Your task to perform on an android device: Is it going to rain today? Image 0: 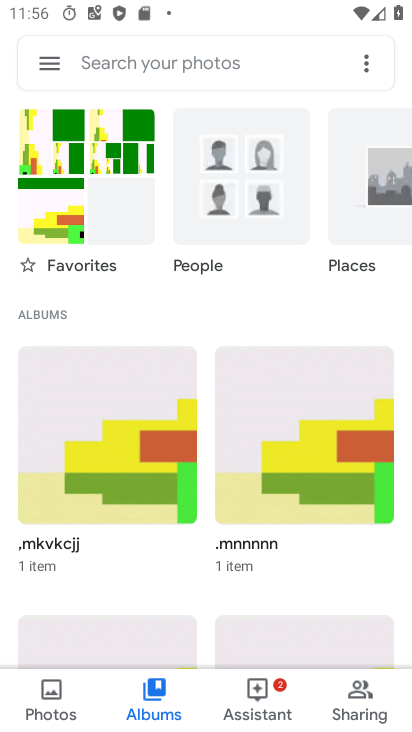
Step 0: press home button
Your task to perform on an android device: Is it going to rain today? Image 1: 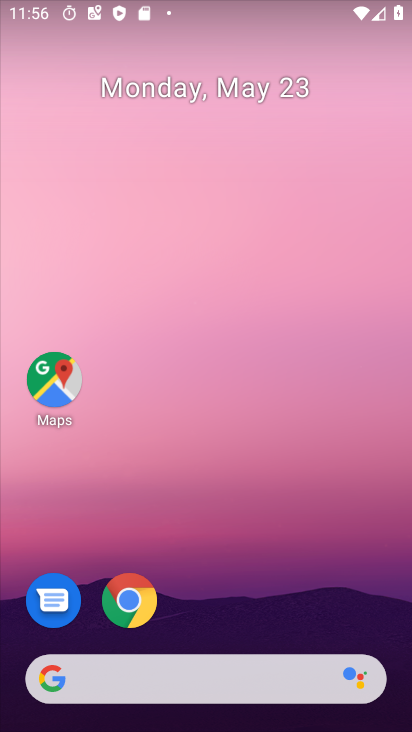
Step 1: drag from (226, 593) to (253, 152)
Your task to perform on an android device: Is it going to rain today? Image 2: 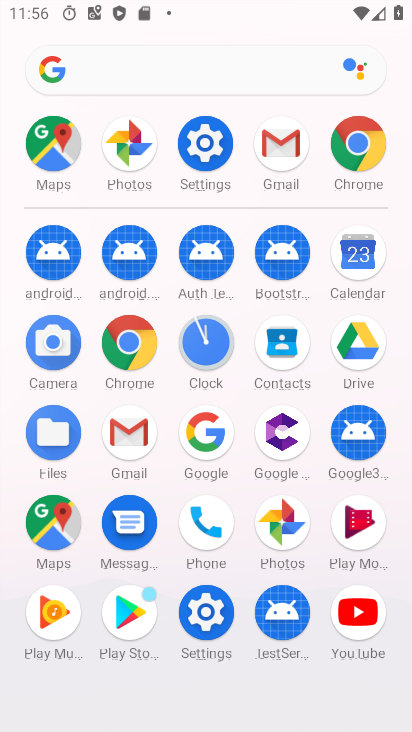
Step 2: click (355, 137)
Your task to perform on an android device: Is it going to rain today? Image 3: 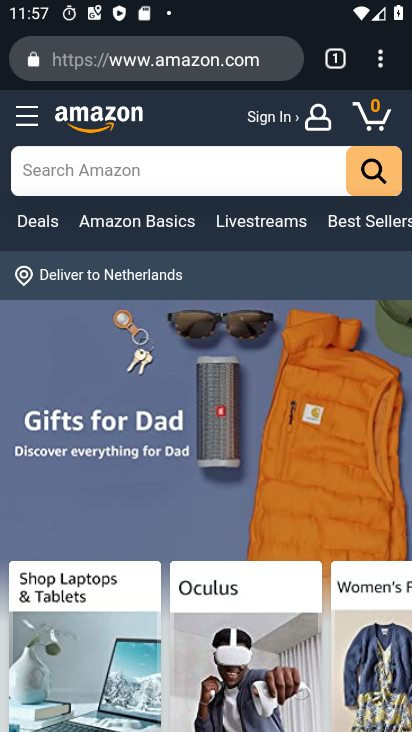
Step 3: press home button
Your task to perform on an android device: Is it going to rain today? Image 4: 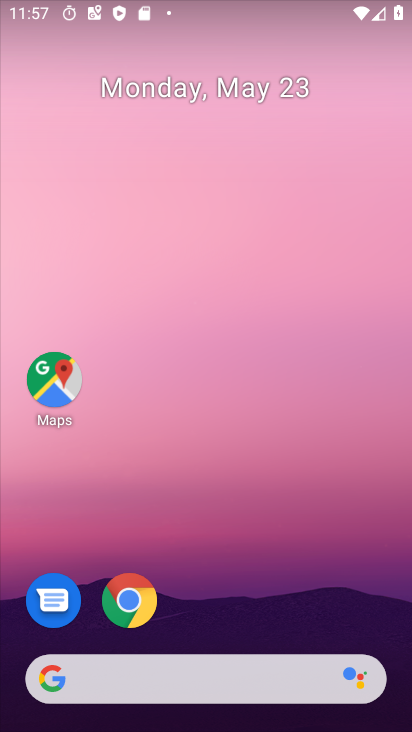
Step 4: click (113, 605)
Your task to perform on an android device: Is it going to rain today? Image 5: 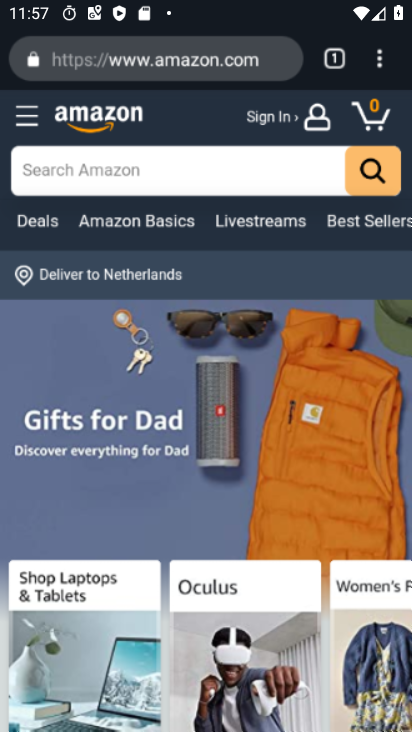
Step 5: click (234, 71)
Your task to perform on an android device: Is it going to rain today? Image 6: 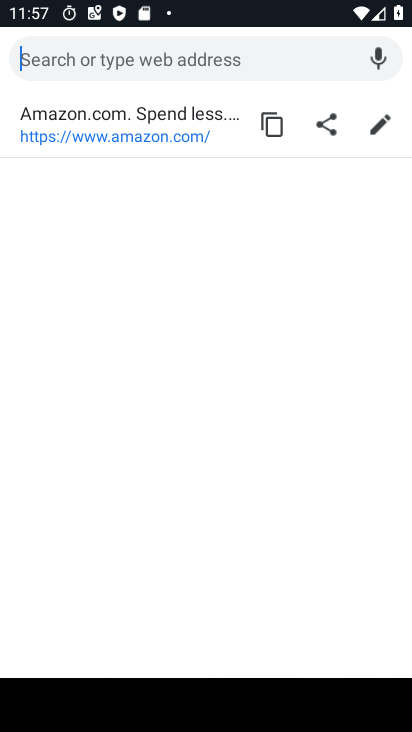
Step 6: type "weather"
Your task to perform on an android device: Is it going to rain today? Image 7: 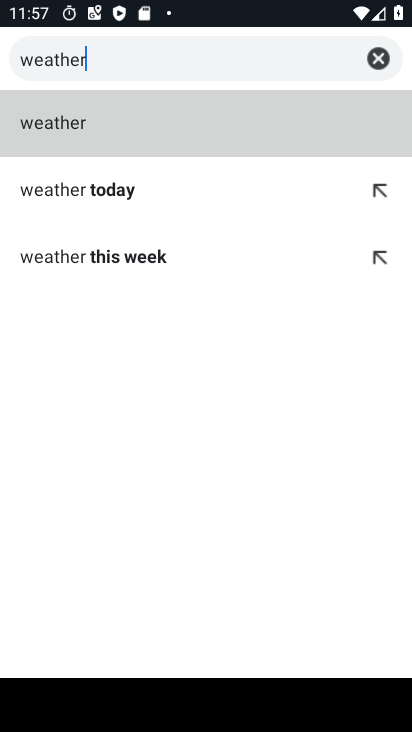
Step 7: click (125, 134)
Your task to perform on an android device: Is it going to rain today? Image 8: 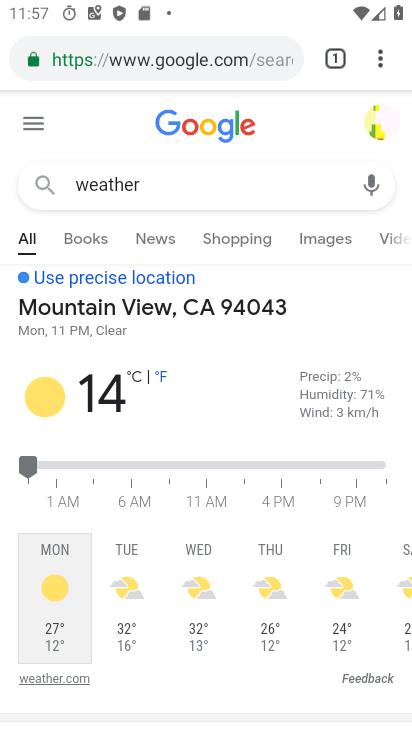
Step 8: task complete